Your task to perform on an android device: Do I have any events this weekend? Image 0: 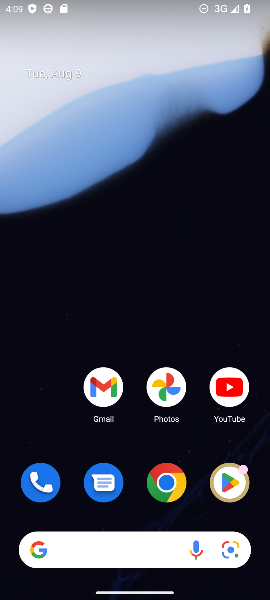
Step 0: drag from (135, 441) to (141, 107)
Your task to perform on an android device: Do I have any events this weekend? Image 1: 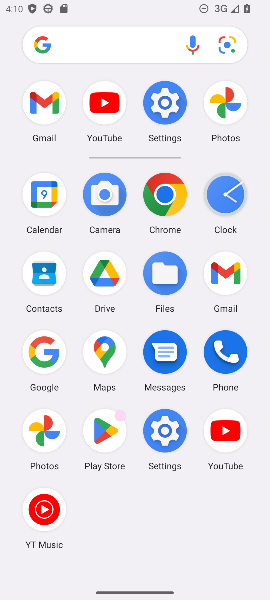
Step 1: click (39, 216)
Your task to perform on an android device: Do I have any events this weekend? Image 2: 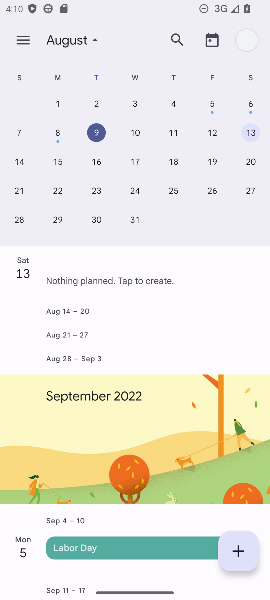
Step 2: click (242, 128)
Your task to perform on an android device: Do I have any events this weekend? Image 3: 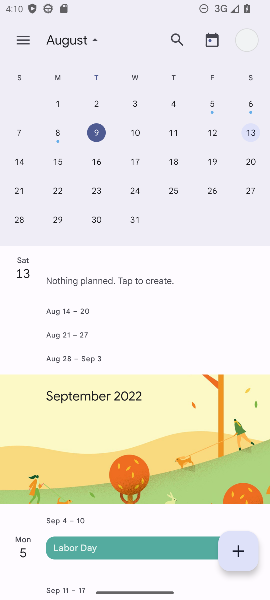
Step 3: click (253, 135)
Your task to perform on an android device: Do I have any events this weekend? Image 4: 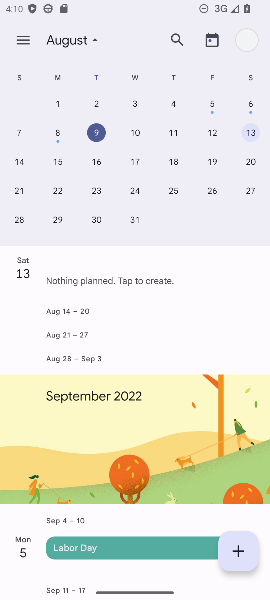
Step 4: task complete